Your task to perform on an android device: toggle notifications settings in the gmail app Image 0: 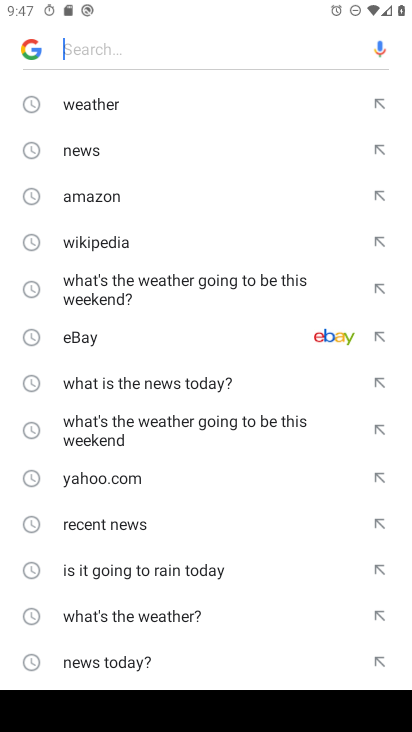
Step 0: press home button
Your task to perform on an android device: toggle notifications settings in the gmail app Image 1: 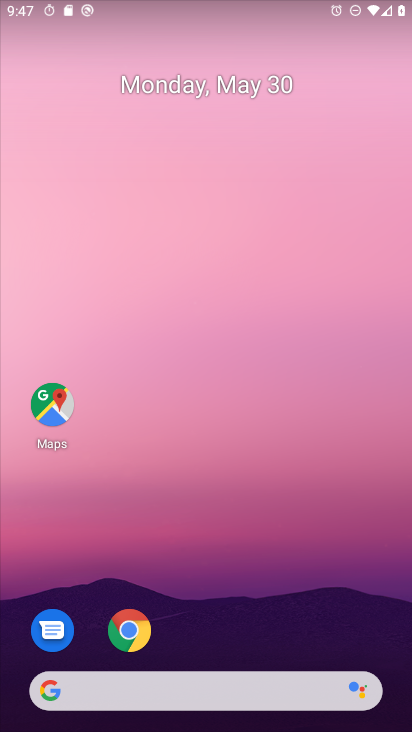
Step 1: drag from (309, 633) to (309, 79)
Your task to perform on an android device: toggle notifications settings in the gmail app Image 2: 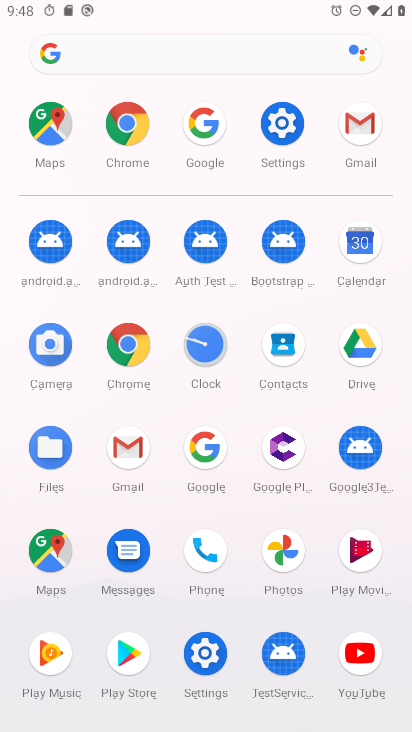
Step 2: click (108, 452)
Your task to perform on an android device: toggle notifications settings in the gmail app Image 3: 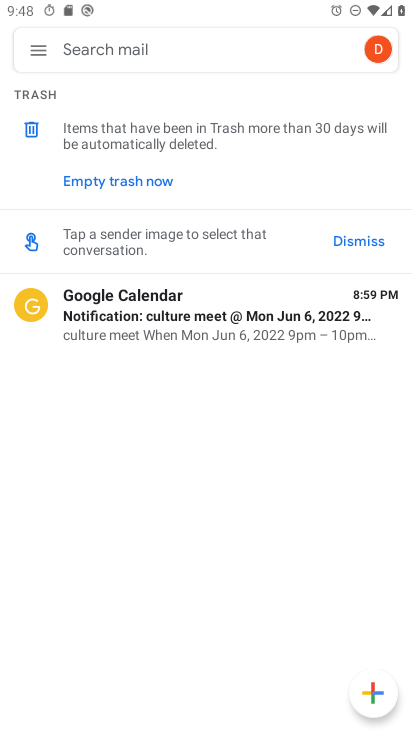
Step 3: click (26, 57)
Your task to perform on an android device: toggle notifications settings in the gmail app Image 4: 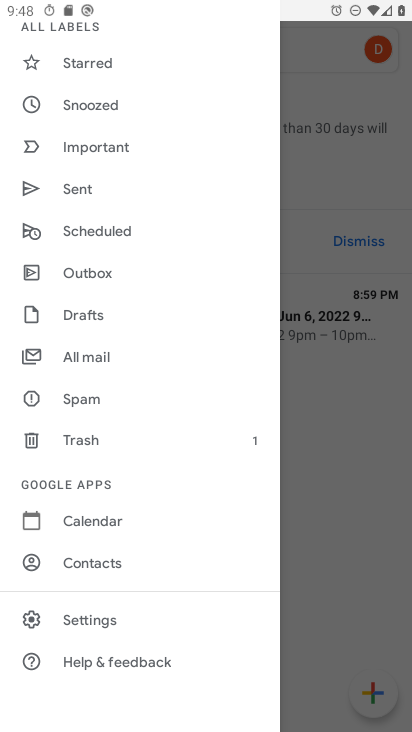
Step 4: click (111, 614)
Your task to perform on an android device: toggle notifications settings in the gmail app Image 5: 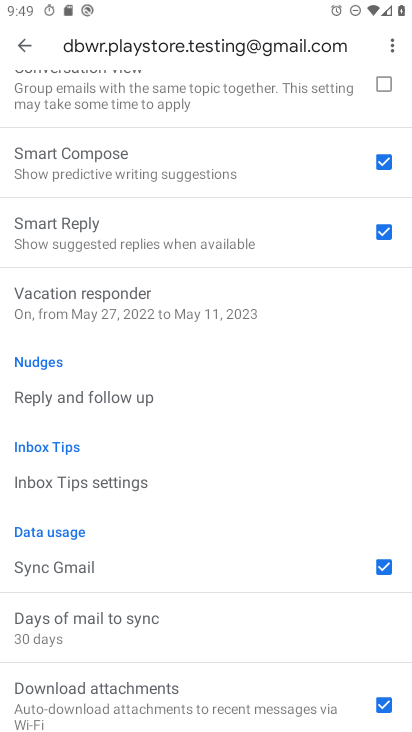
Step 5: drag from (138, 148) to (203, 728)
Your task to perform on an android device: toggle notifications settings in the gmail app Image 6: 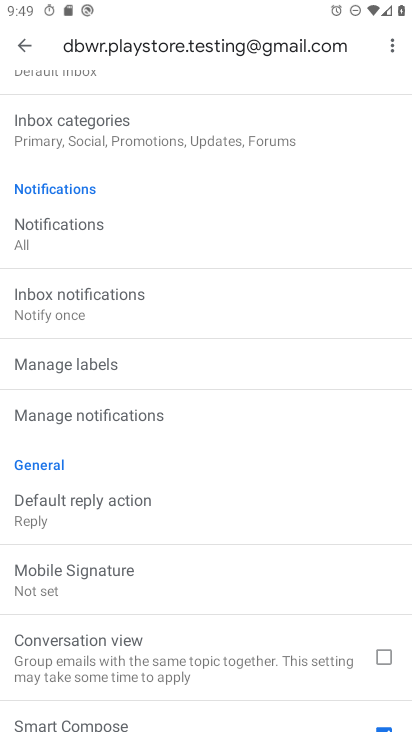
Step 6: click (137, 245)
Your task to perform on an android device: toggle notifications settings in the gmail app Image 7: 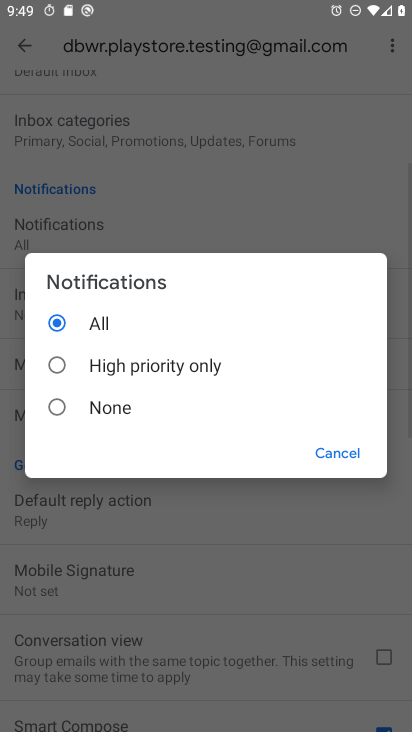
Step 7: click (96, 416)
Your task to perform on an android device: toggle notifications settings in the gmail app Image 8: 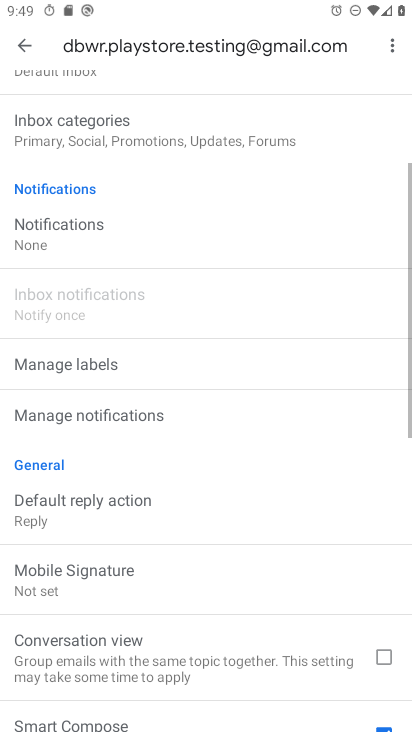
Step 8: task complete